Your task to perform on an android device: Open calendar and show me the third week of next month Image 0: 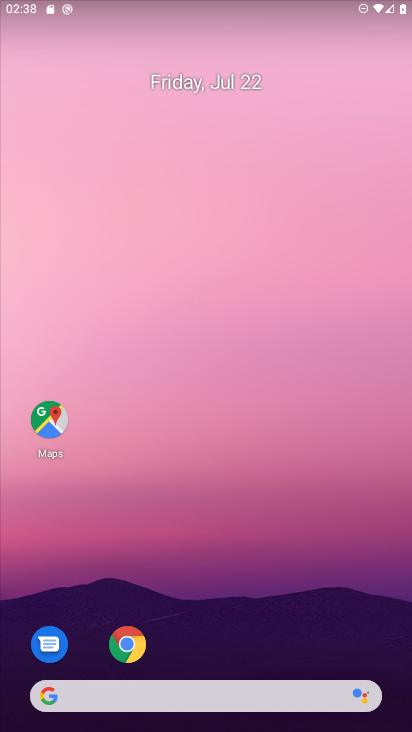
Step 0: click (284, 2)
Your task to perform on an android device: Open calendar and show me the third week of next month Image 1: 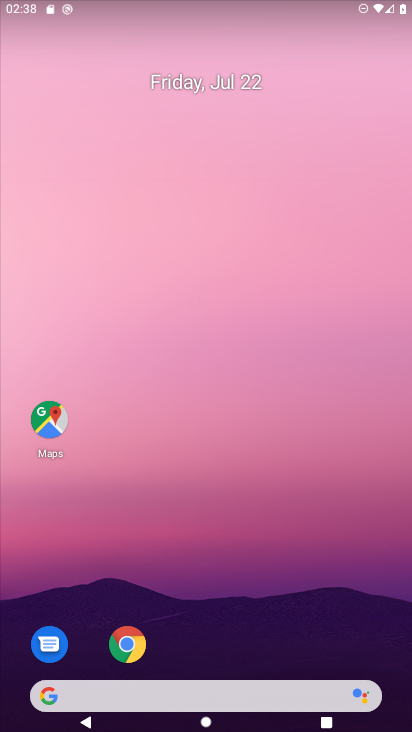
Step 1: drag from (235, 713) to (263, 12)
Your task to perform on an android device: Open calendar and show me the third week of next month Image 2: 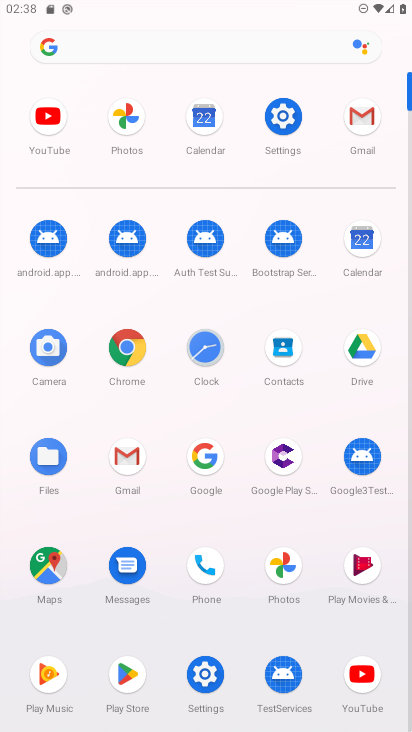
Step 2: drag from (302, 725) to (347, 9)
Your task to perform on an android device: Open calendar and show me the third week of next month Image 3: 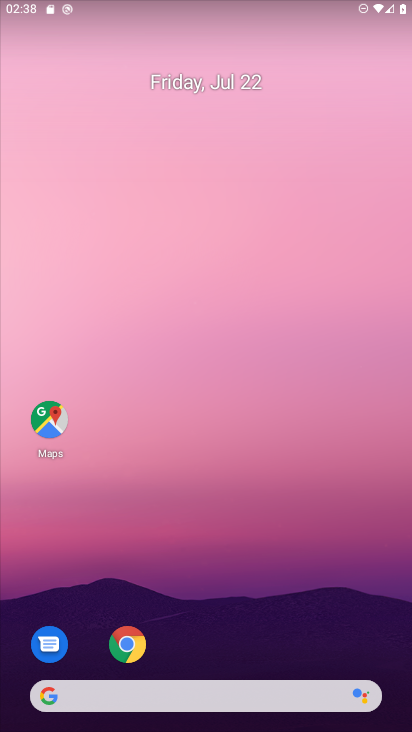
Step 3: click (378, 251)
Your task to perform on an android device: Open calendar and show me the third week of next month Image 4: 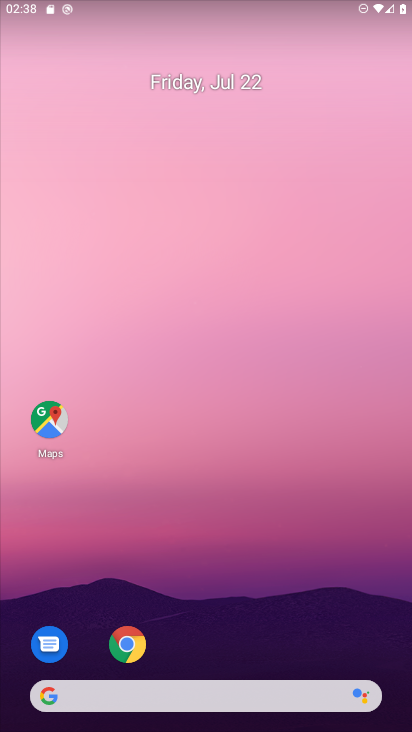
Step 4: drag from (217, 721) to (309, 7)
Your task to perform on an android device: Open calendar and show me the third week of next month Image 5: 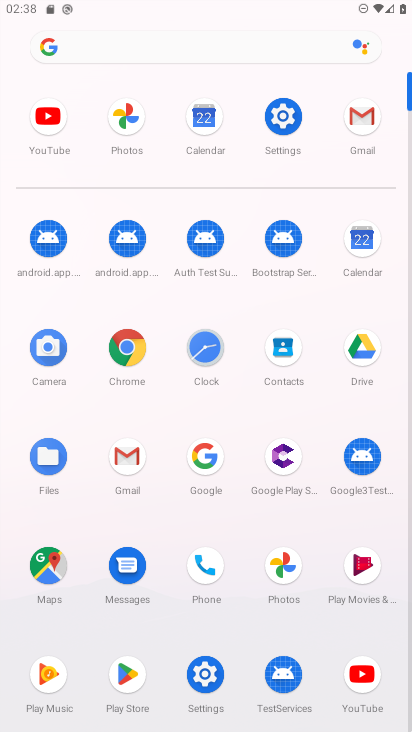
Step 5: click (216, 125)
Your task to perform on an android device: Open calendar and show me the third week of next month Image 6: 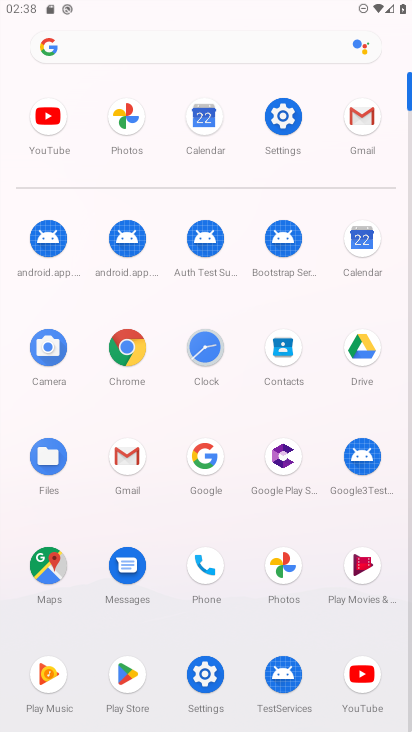
Step 6: click (216, 125)
Your task to perform on an android device: Open calendar and show me the third week of next month Image 7: 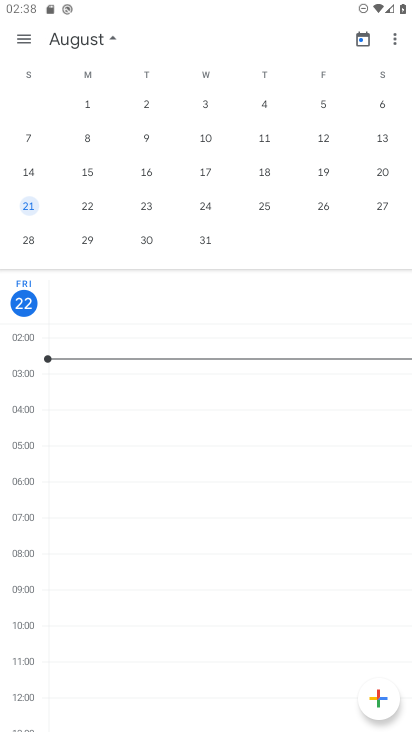
Step 7: click (23, 176)
Your task to perform on an android device: Open calendar and show me the third week of next month Image 8: 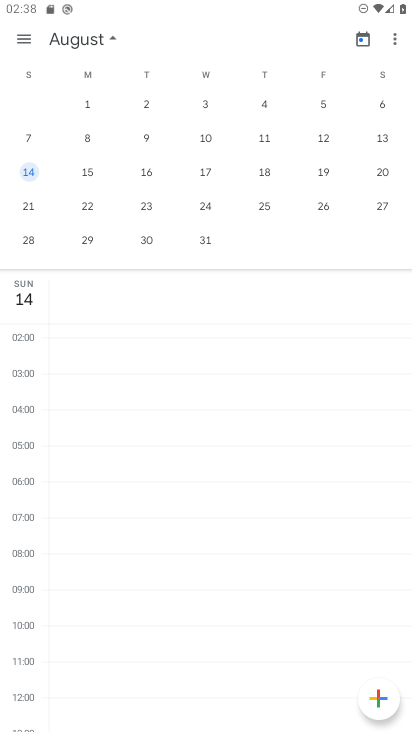
Step 8: task complete